Your task to perform on an android device: Open battery settings Image 0: 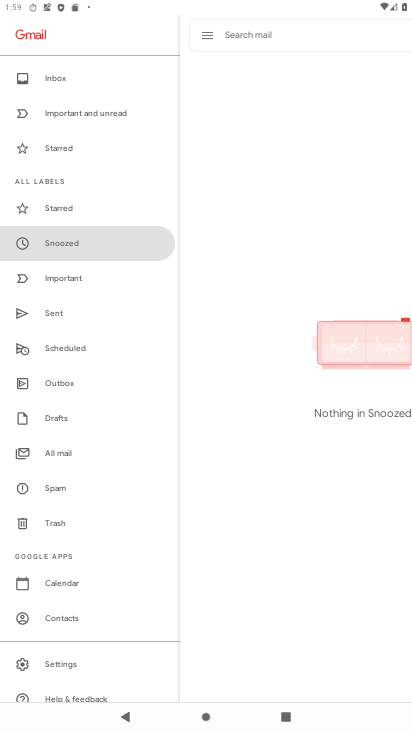
Step 0: press home button
Your task to perform on an android device: Open battery settings Image 1: 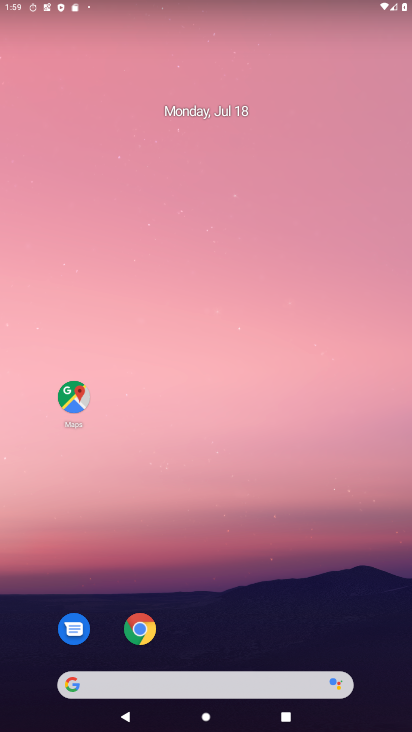
Step 1: drag from (215, 652) to (210, 77)
Your task to perform on an android device: Open battery settings Image 2: 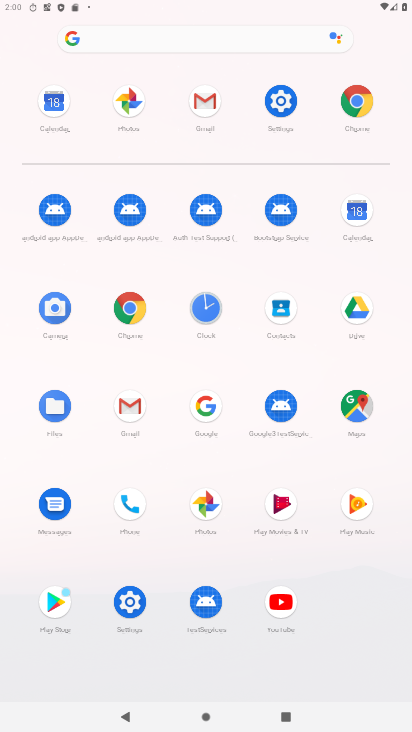
Step 2: click (281, 93)
Your task to perform on an android device: Open battery settings Image 3: 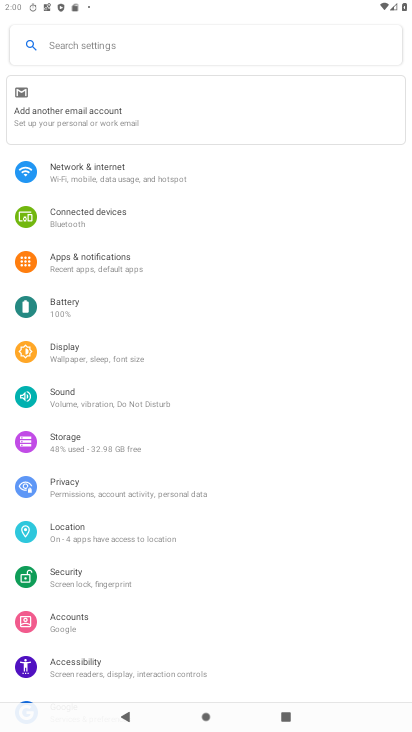
Step 3: click (95, 309)
Your task to perform on an android device: Open battery settings Image 4: 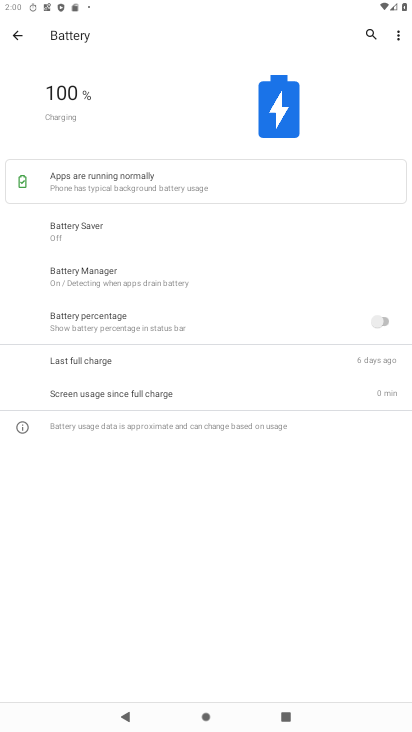
Step 4: task complete